Your task to perform on an android device: toggle show notifications on the lock screen Image 0: 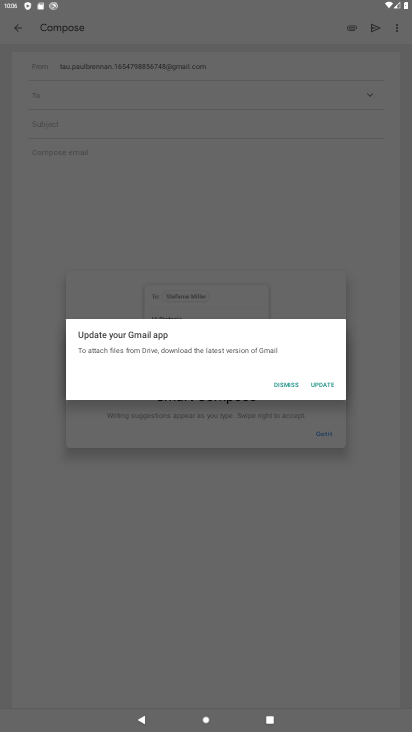
Step 0: press home button
Your task to perform on an android device: toggle show notifications on the lock screen Image 1: 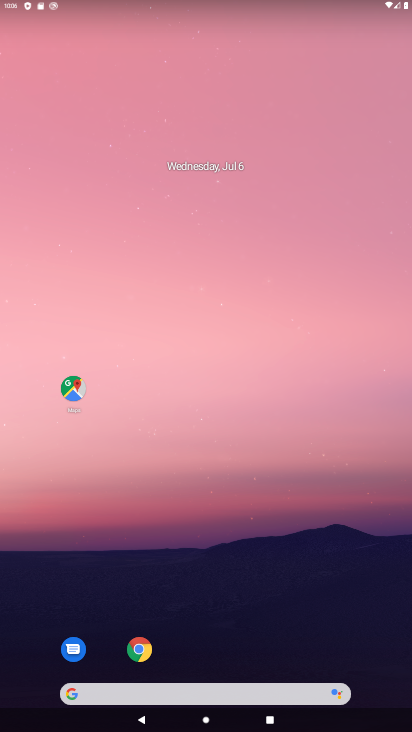
Step 1: drag from (370, 531) to (245, 129)
Your task to perform on an android device: toggle show notifications on the lock screen Image 2: 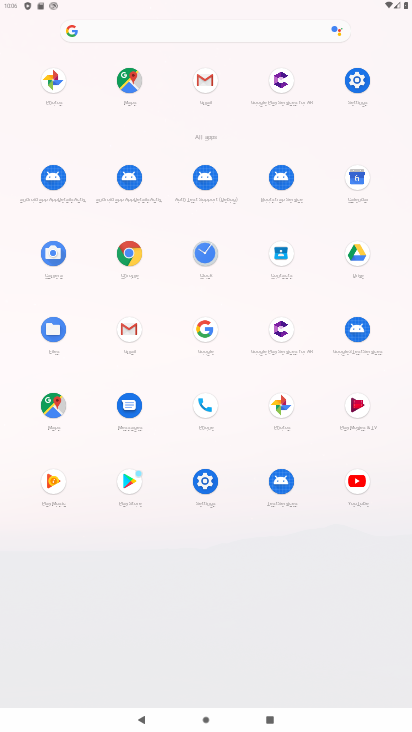
Step 2: click (351, 72)
Your task to perform on an android device: toggle show notifications on the lock screen Image 3: 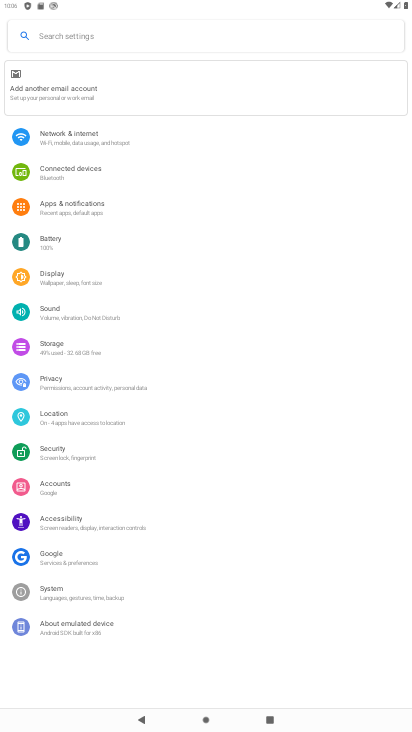
Step 3: click (62, 201)
Your task to perform on an android device: toggle show notifications on the lock screen Image 4: 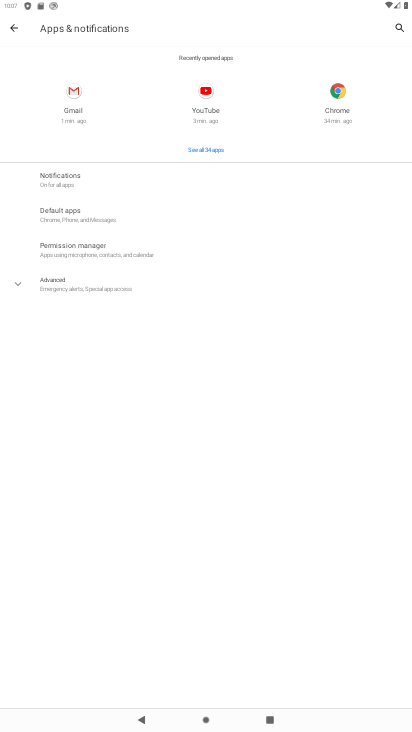
Step 4: click (62, 180)
Your task to perform on an android device: toggle show notifications on the lock screen Image 5: 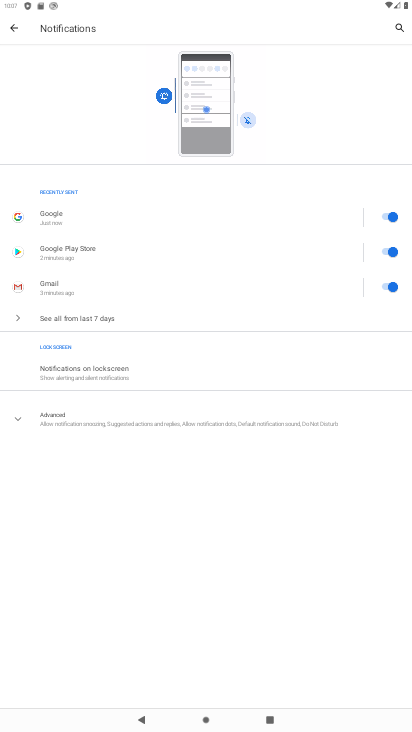
Step 5: click (22, 420)
Your task to perform on an android device: toggle show notifications on the lock screen Image 6: 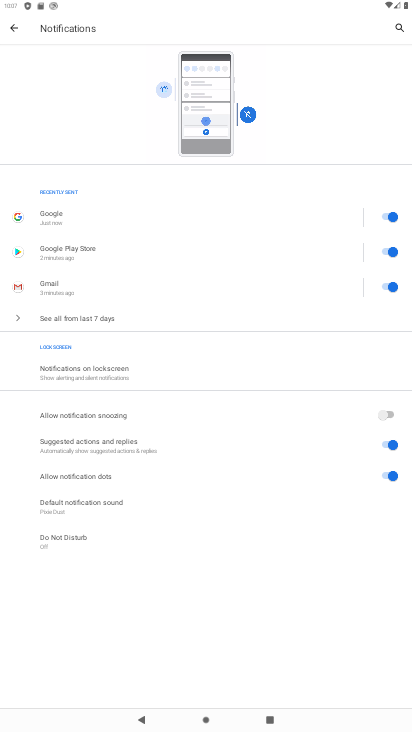
Step 6: click (108, 408)
Your task to perform on an android device: toggle show notifications on the lock screen Image 7: 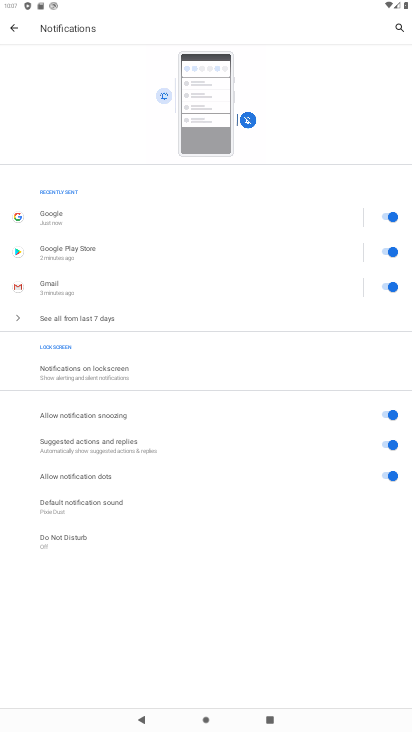
Step 7: task complete